Your task to perform on an android device: Show me the alarms in the clock app Image 0: 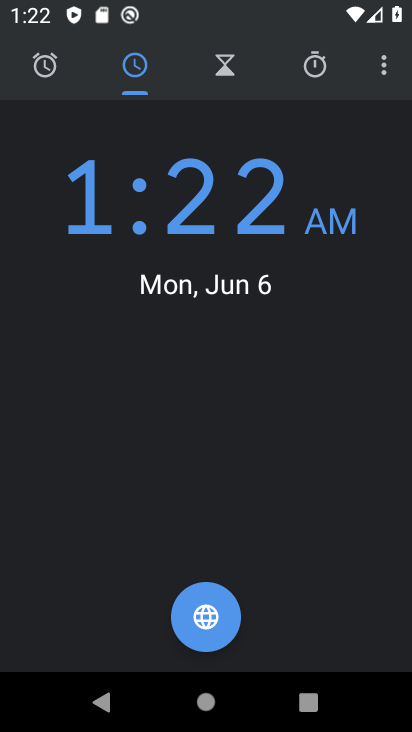
Step 0: press home button
Your task to perform on an android device: Show me the alarms in the clock app Image 1: 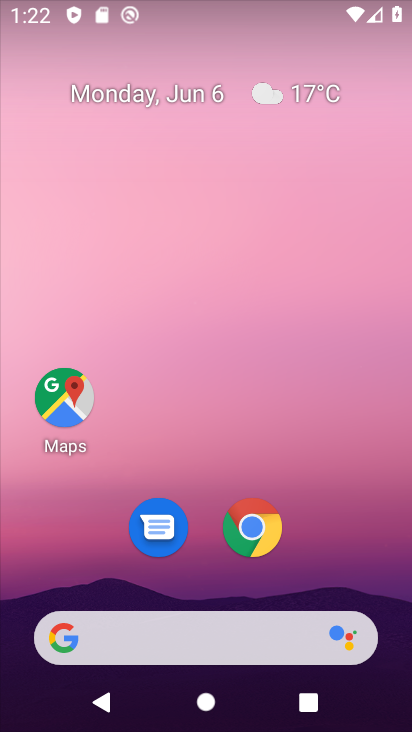
Step 1: drag from (238, 668) to (208, 59)
Your task to perform on an android device: Show me the alarms in the clock app Image 2: 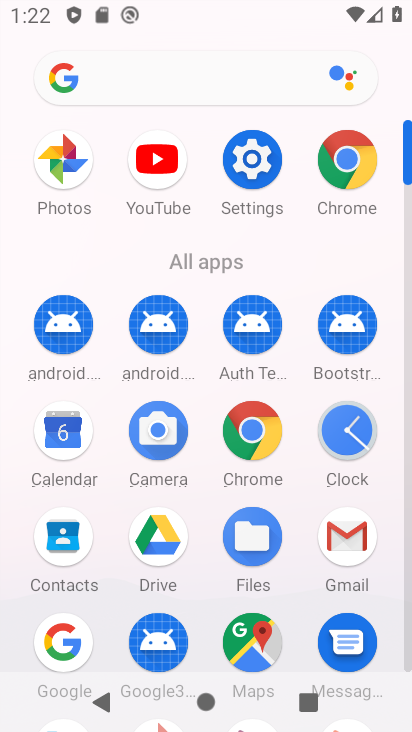
Step 2: click (344, 420)
Your task to perform on an android device: Show me the alarms in the clock app Image 3: 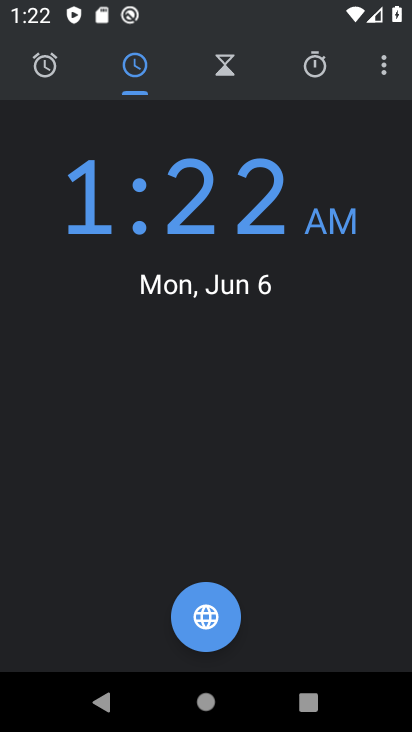
Step 3: click (47, 66)
Your task to perform on an android device: Show me the alarms in the clock app Image 4: 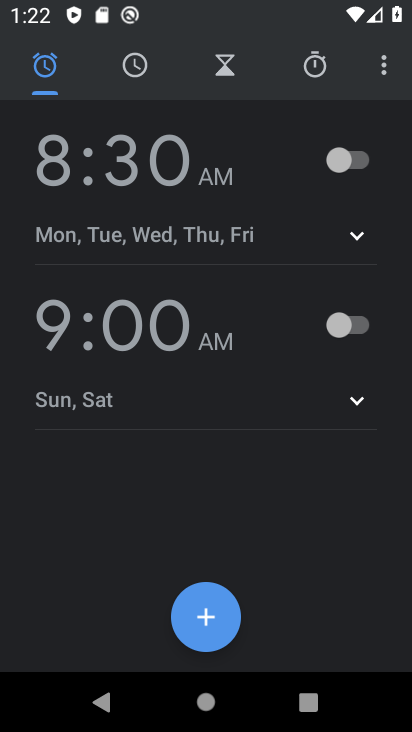
Step 4: task complete